Your task to perform on an android device: toggle notifications settings in the gmail app Image 0: 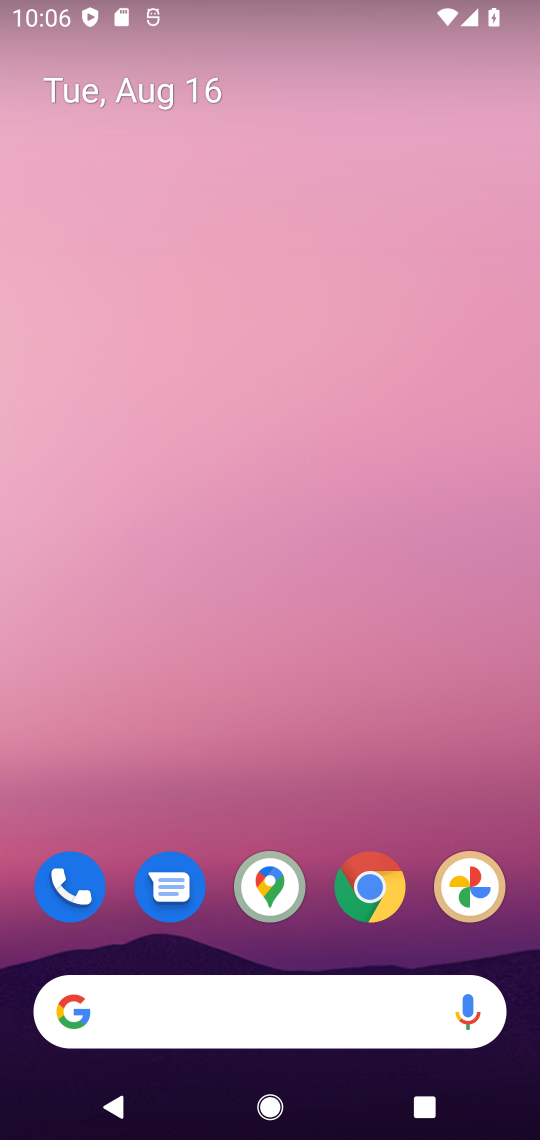
Step 0: press home button
Your task to perform on an android device: toggle notifications settings in the gmail app Image 1: 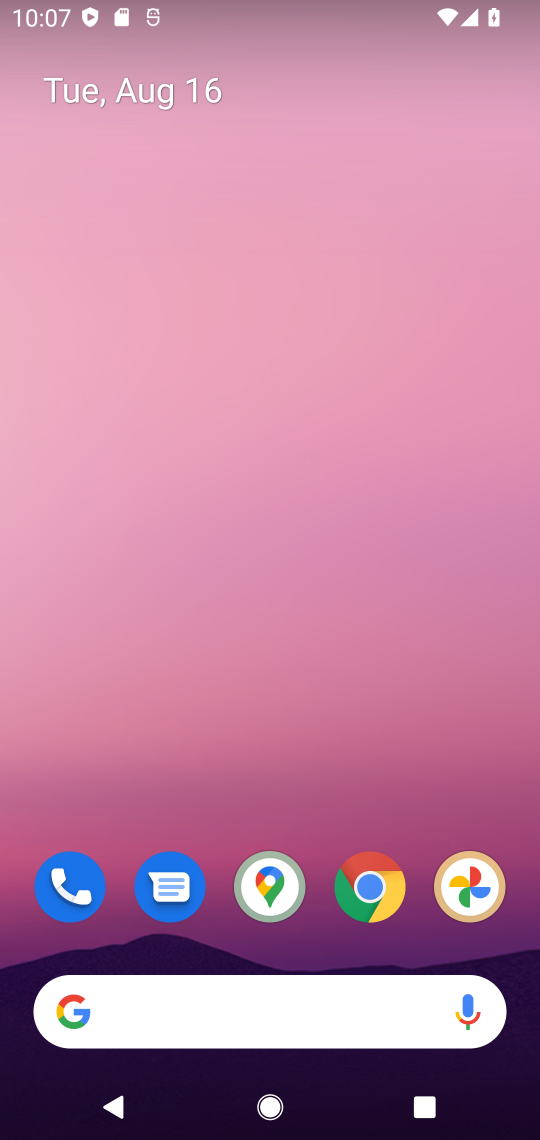
Step 1: drag from (393, 724) to (422, 158)
Your task to perform on an android device: toggle notifications settings in the gmail app Image 2: 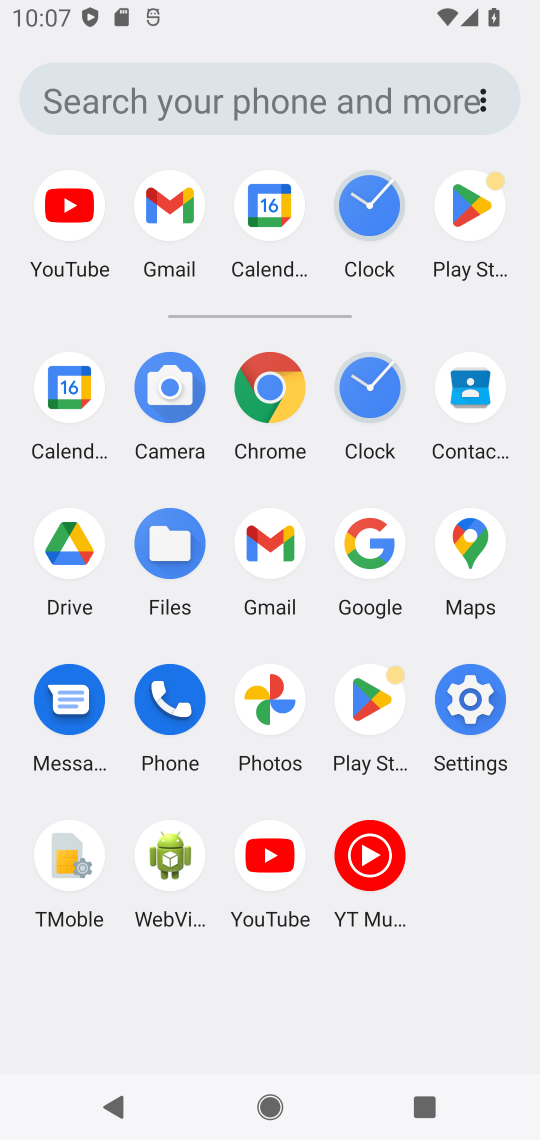
Step 2: click (271, 546)
Your task to perform on an android device: toggle notifications settings in the gmail app Image 3: 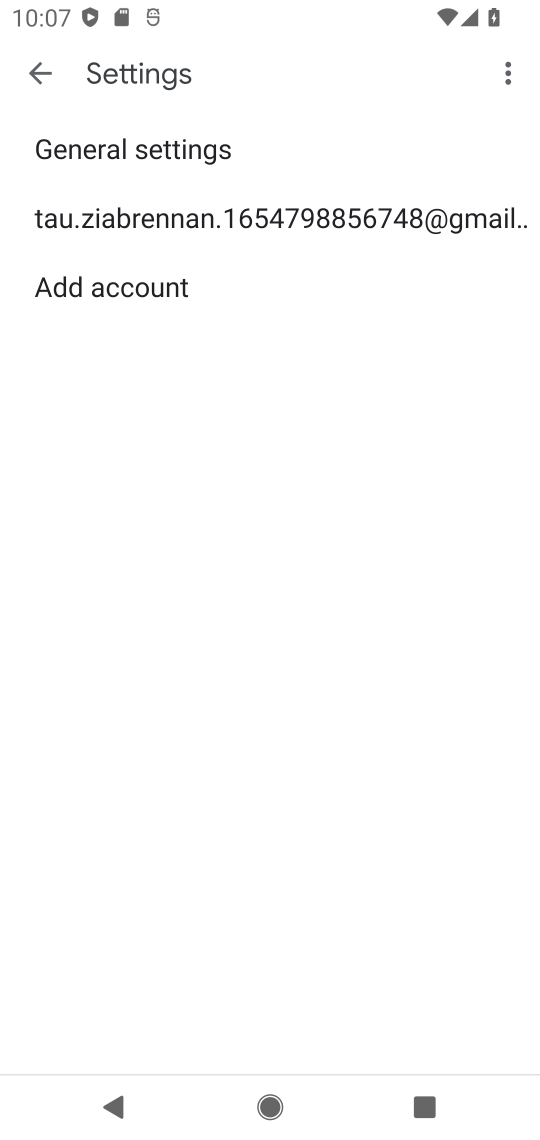
Step 3: click (291, 223)
Your task to perform on an android device: toggle notifications settings in the gmail app Image 4: 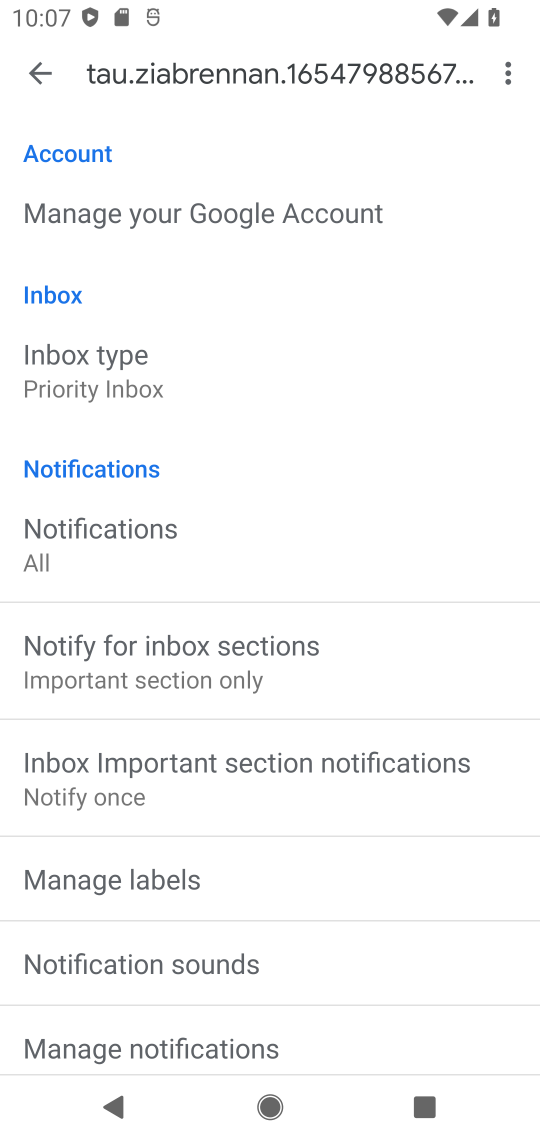
Step 4: drag from (489, 680) to (481, 553)
Your task to perform on an android device: toggle notifications settings in the gmail app Image 5: 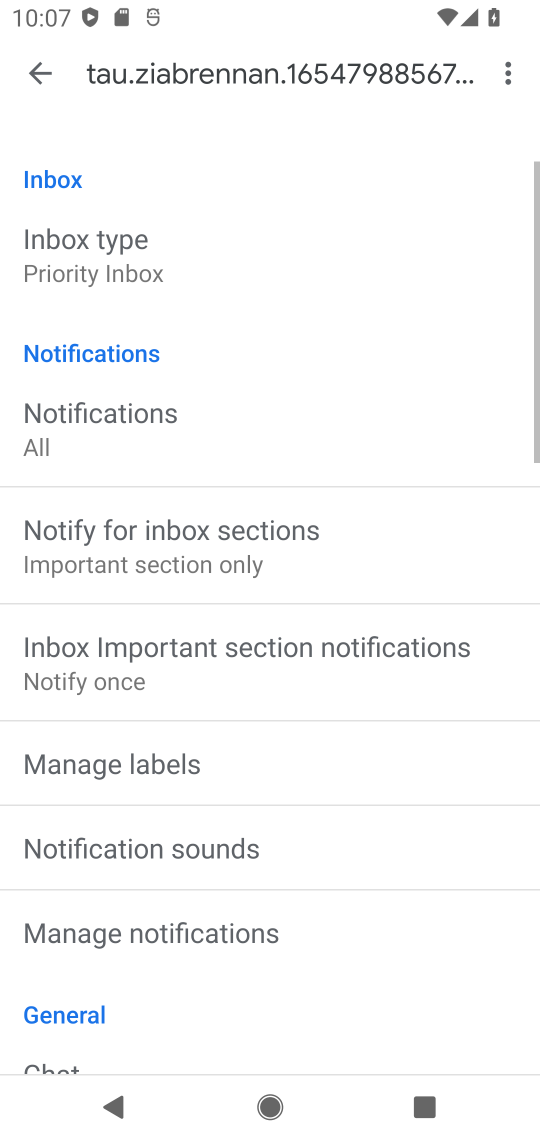
Step 5: drag from (481, 798) to (486, 599)
Your task to perform on an android device: toggle notifications settings in the gmail app Image 6: 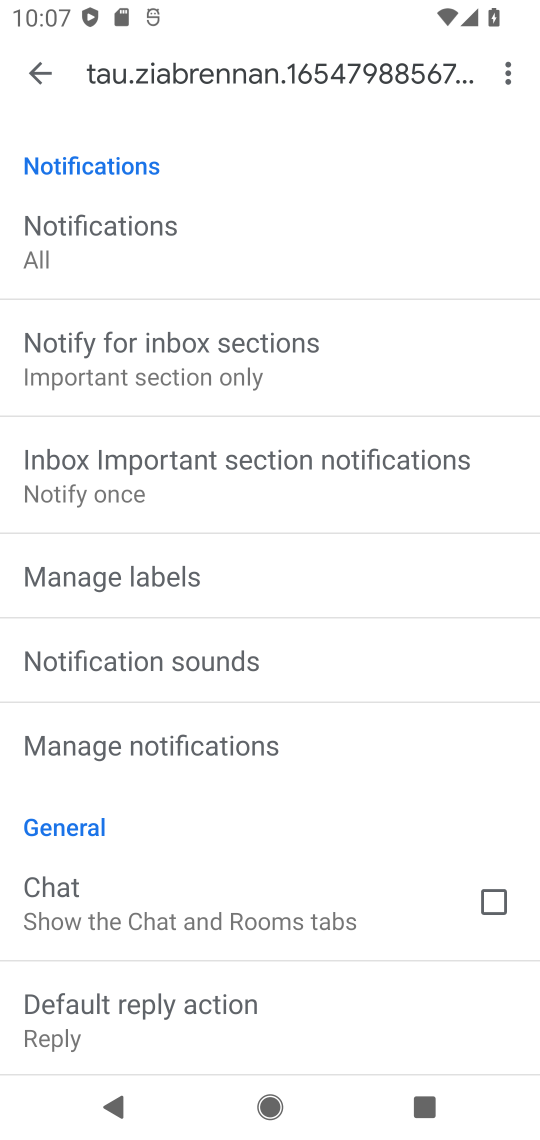
Step 6: drag from (408, 811) to (410, 605)
Your task to perform on an android device: toggle notifications settings in the gmail app Image 7: 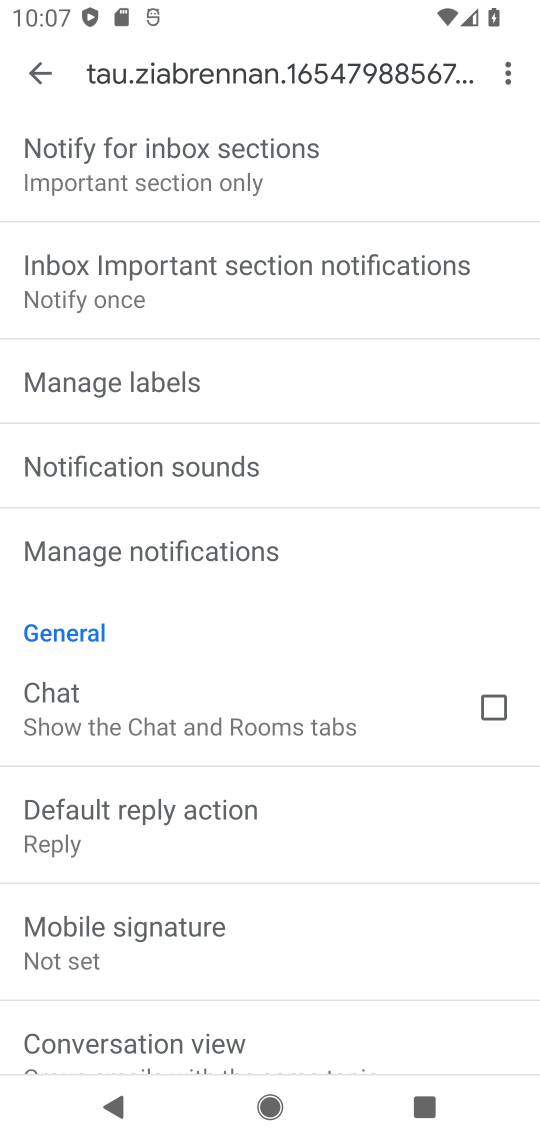
Step 7: drag from (398, 808) to (396, 614)
Your task to perform on an android device: toggle notifications settings in the gmail app Image 8: 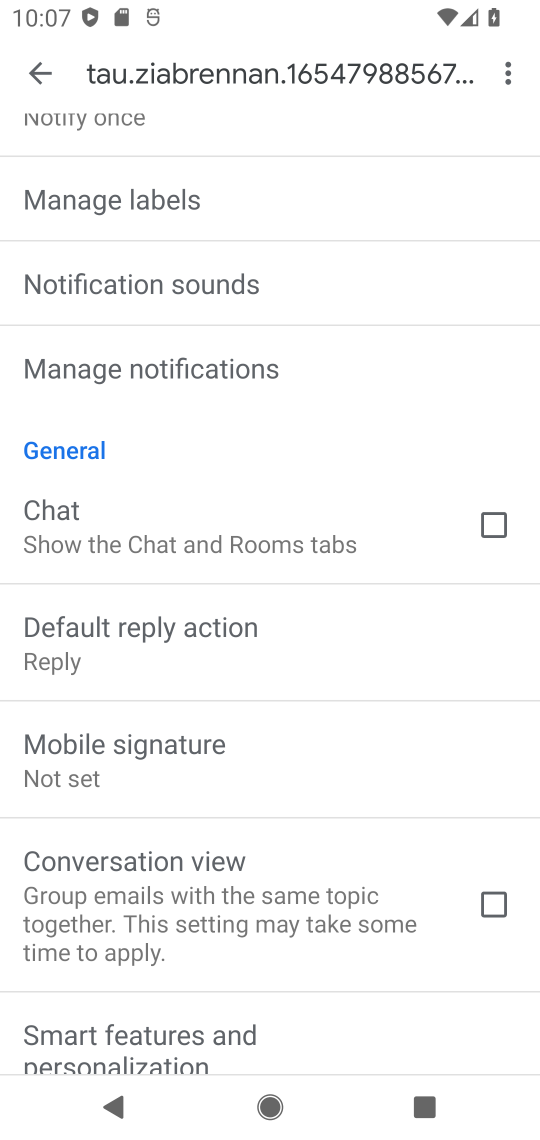
Step 8: click (271, 385)
Your task to perform on an android device: toggle notifications settings in the gmail app Image 9: 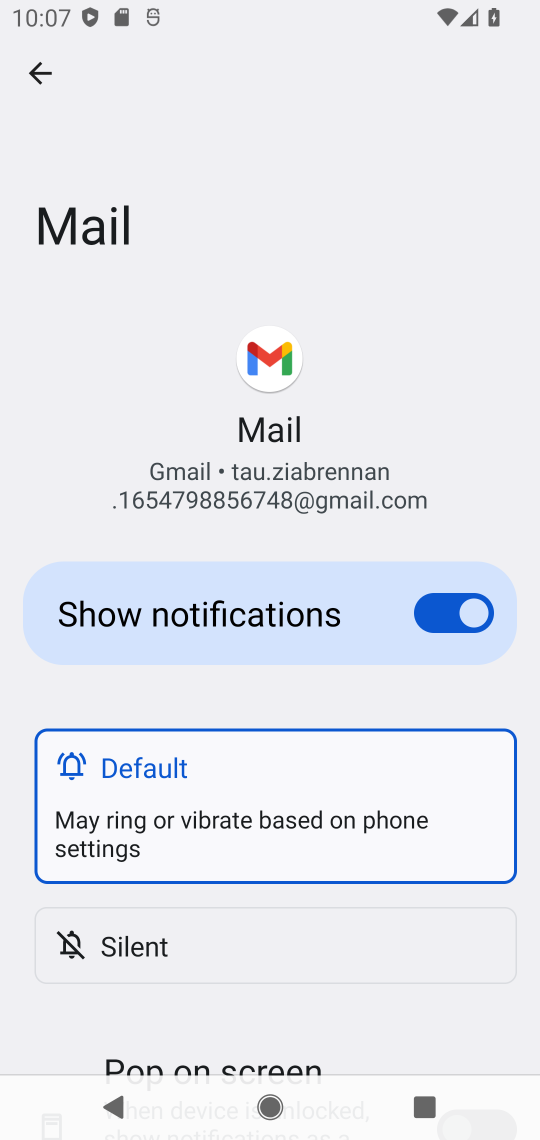
Step 9: click (424, 611)
Your task to perform on an android device: toggle notifications settings in the gmail app Image 10: 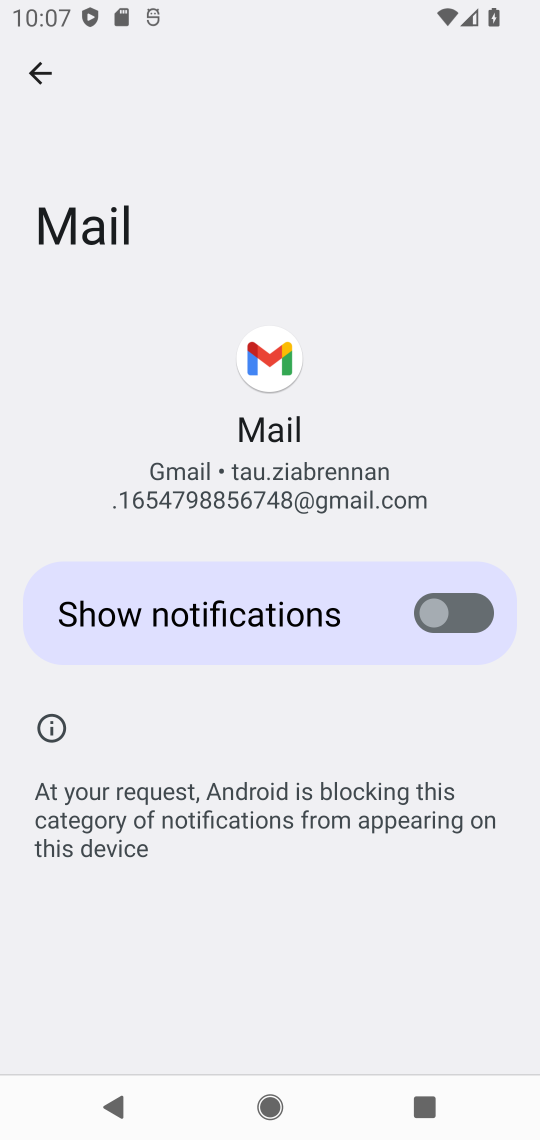
Step 10: task complete